Your task to perform on an android device: Search for a new blush on Sephora Image 0: 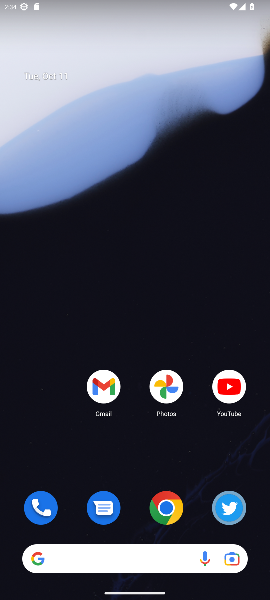
Step 0: click (175, 510)
Your task to perform on an android device: Search for a new blush on Sephora Image 1: 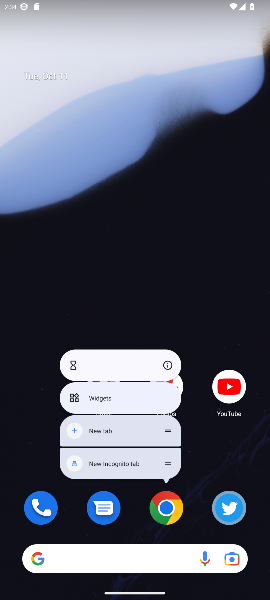
Step 1: click (159, 507)
Your task to perform on an android device: Search for a new blush on Sephora Image 2: 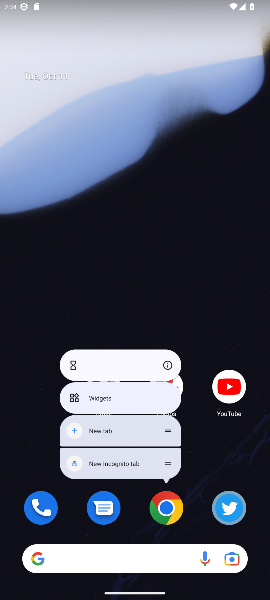
Step 2: click (171, 504)
Your task to perform on an android device: Search for a new blush on Sephora Image 3: 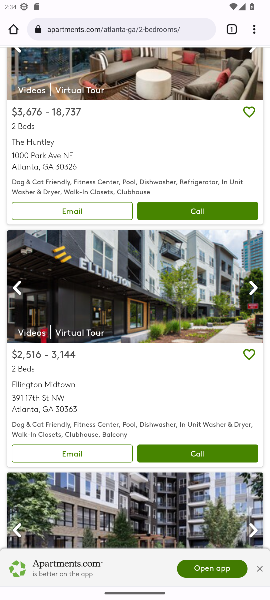
Step 3: click (123, 26)
Your task to perform on an android device: Search for a new blush on Sephora Image 4: 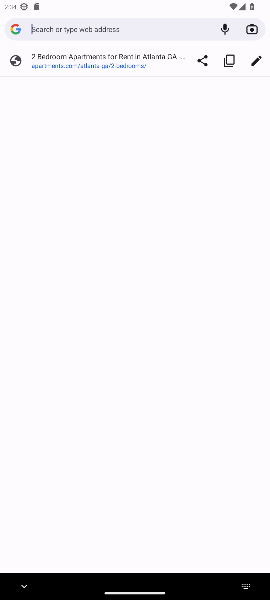
Step 4: type "new blush on Sephora"
Your task to perform on an android device: Search for a new blush on Sephora Image 5: 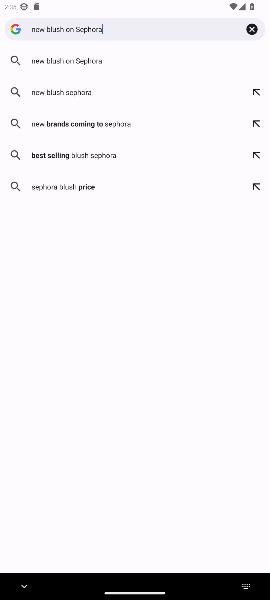
Step 5: press enter
Your task to perform on an android device: Search for a new blush on Sephora Image 6: 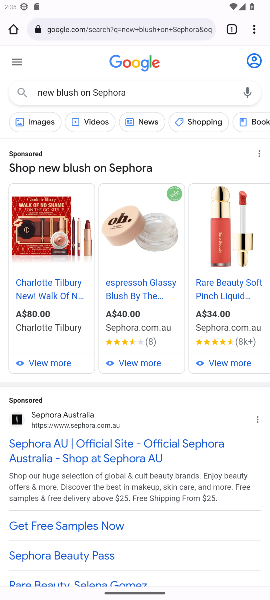
Step 6: task complete